Your task to perform on an android device: Open Maps and search for coffee Image 0: 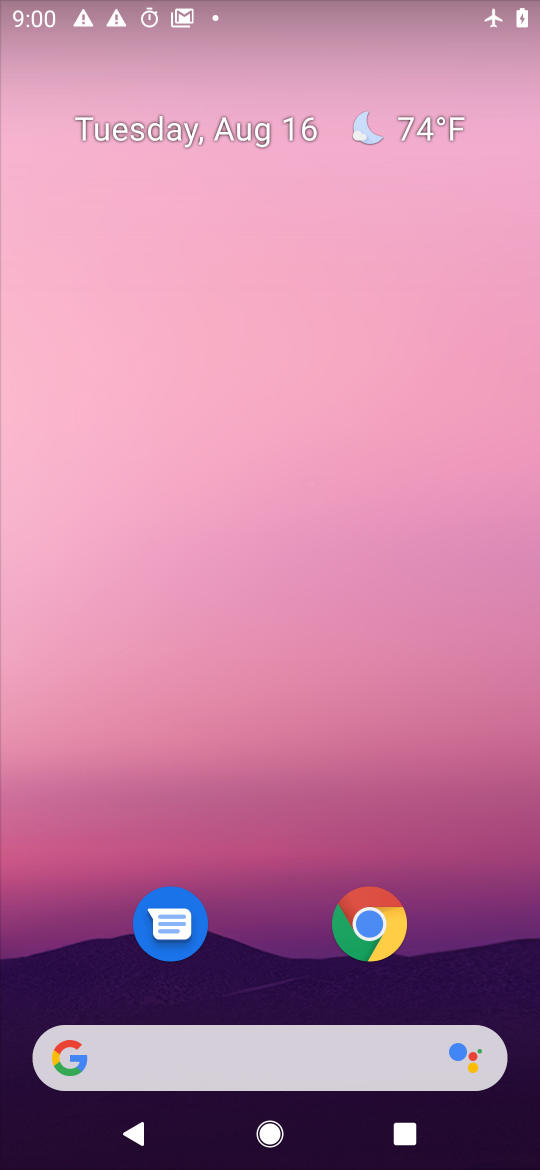
Step 0: drag from (310, 999) to (387, 75)
Your task to perform on an android device: Open Maps and search for coffee Image 1: 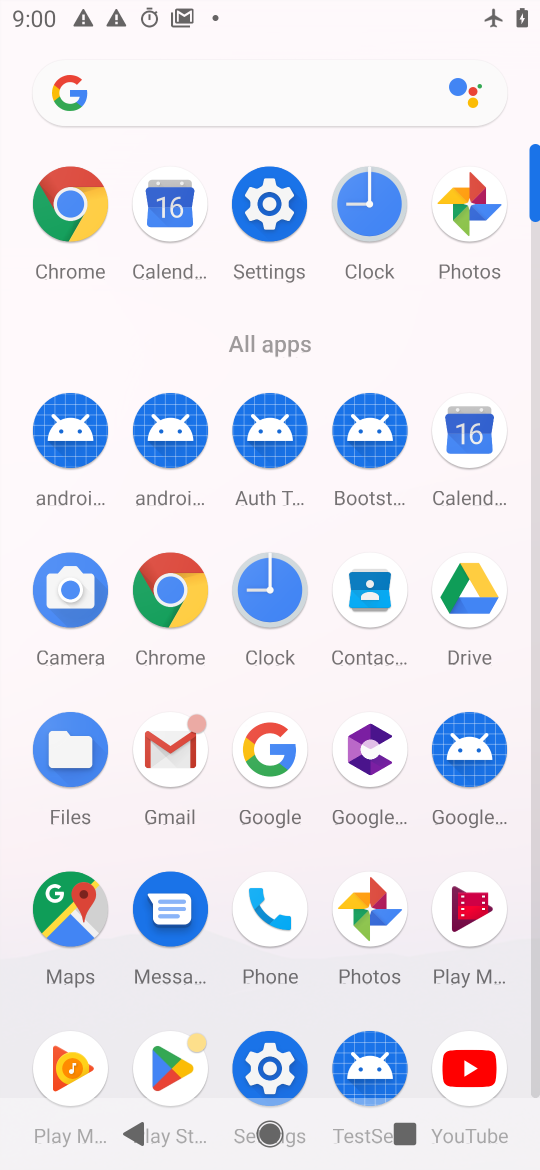
Step 1: click (54, 920)
Your task to perform on an android device: Open Maps and search for coffee Image 2: 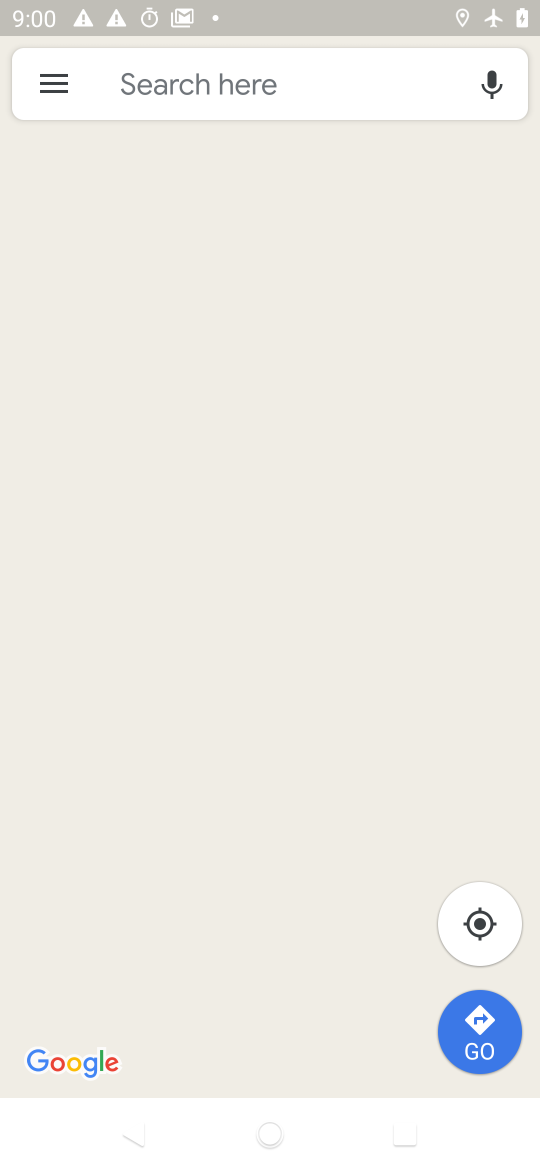
Step 2: click (256, 97)
Your task to perform on an android device: Open Maps and search for coffee Image 3: 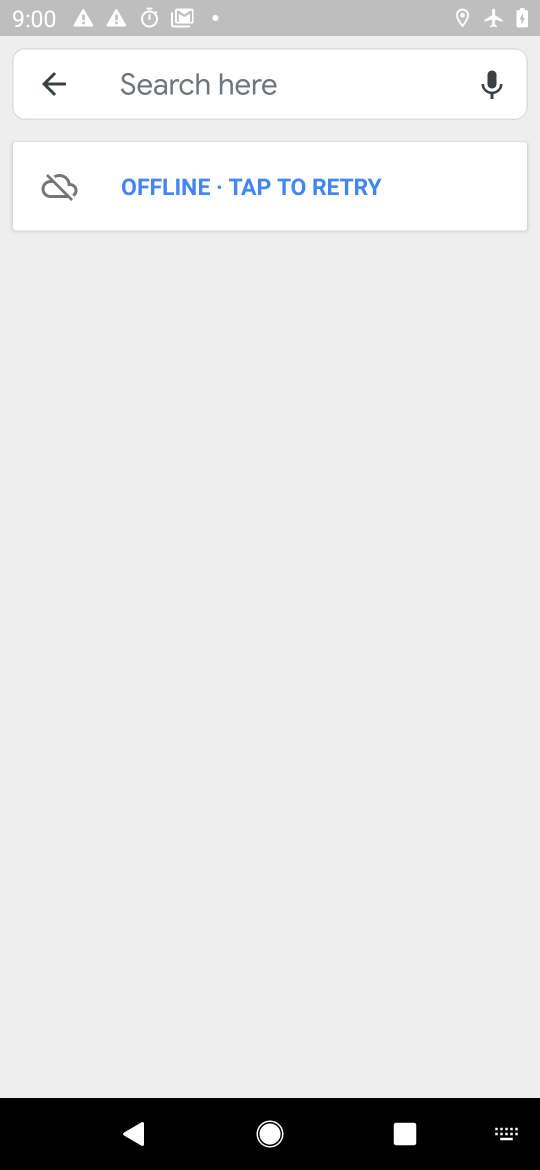
Step 3: click (241, 88)
Your task to perform on an android device: Open Maps and search for coffee Image 4: 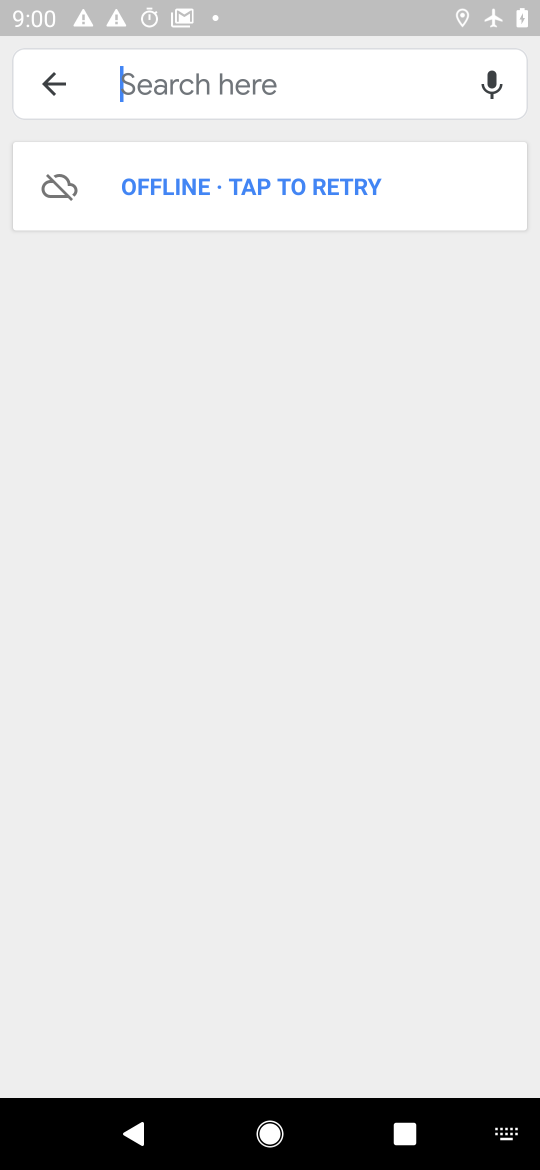
Step 4: drag from (456, 117) to (456, 853)
Your task to perform on an android device: Open Maps and search for coffee Image 5: 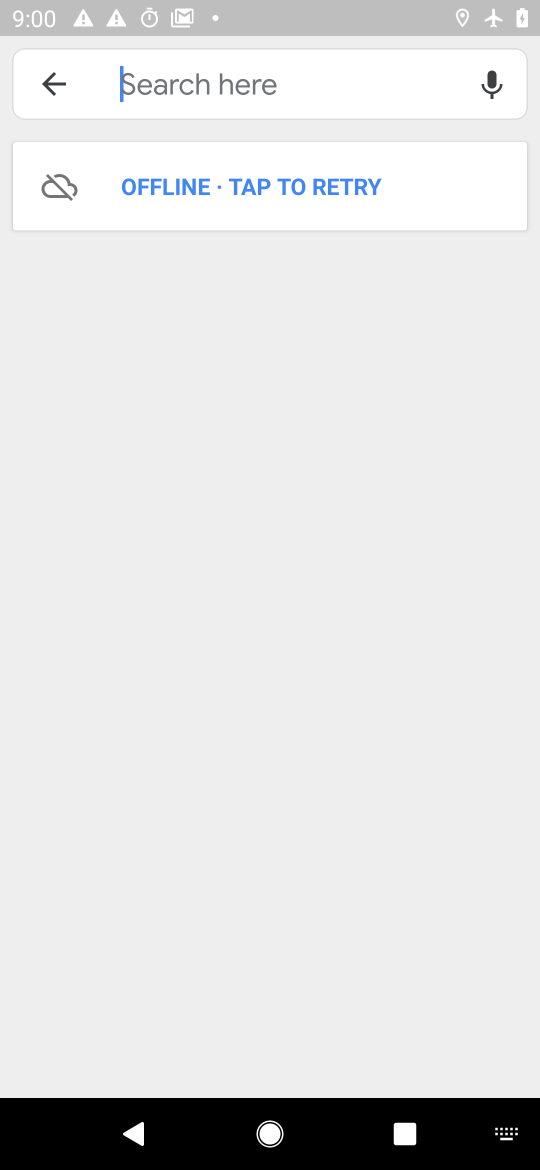
Step 5: drag from (493, 3) to (329, 911)
Your task to perform on an android device: Open Maps and search for coffee Image 6: 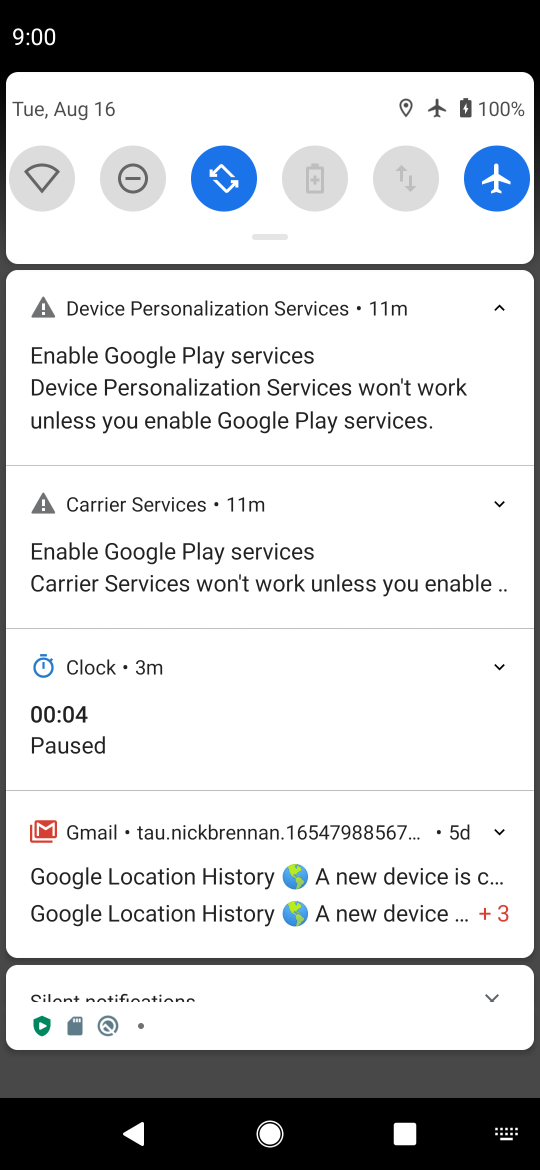
Step 6: click (487, 177)
Your task to perform on an android device: Open Maps and search for coffee Image 7: 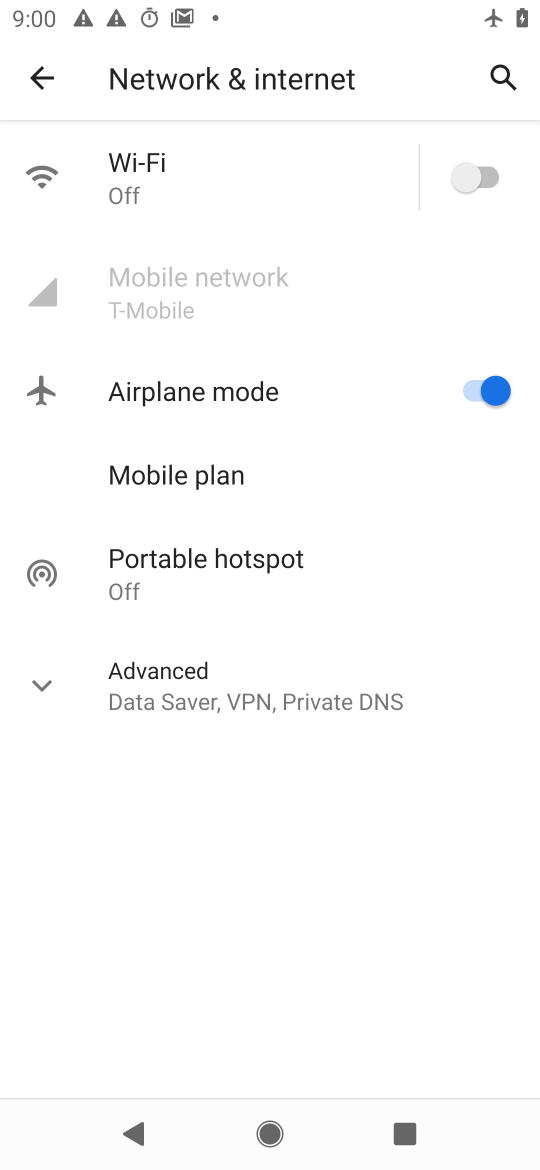
Step 7: click (487, 402)
Your task to perform on an android device: Open Maps and search for coffee Image 8: 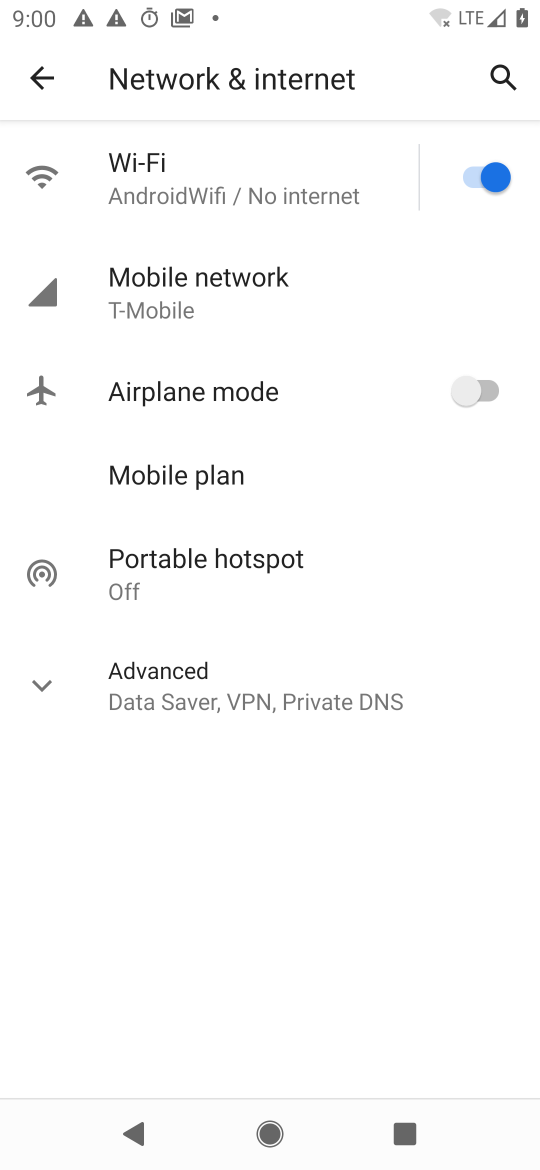
Step 8: press back button
Your task to perform on an android device: Open Maps and search for coffee Image 9: 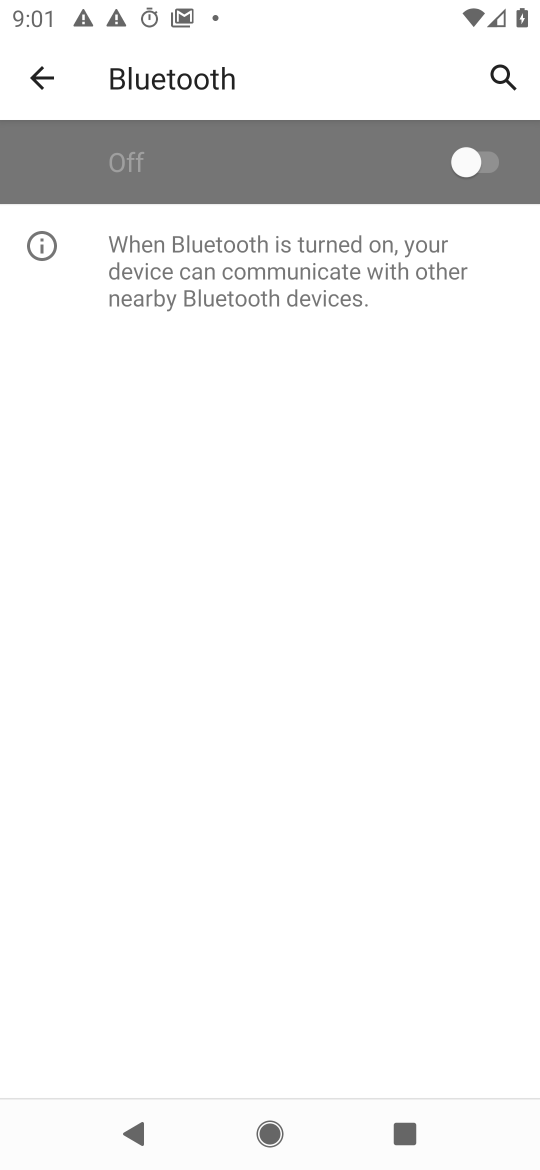
Step 9: press back button
Your task to perform on an android device: Open Maps and search for coffee Image 10: 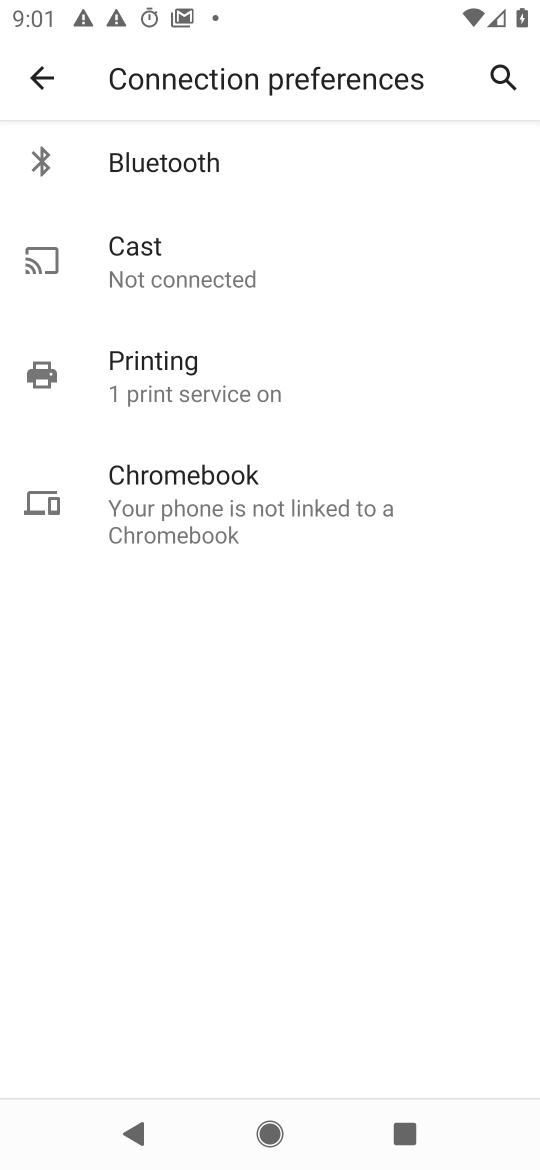
Step 10: press back button
Your task to perform on an android device: Open Maps and search for coffee Image 11: 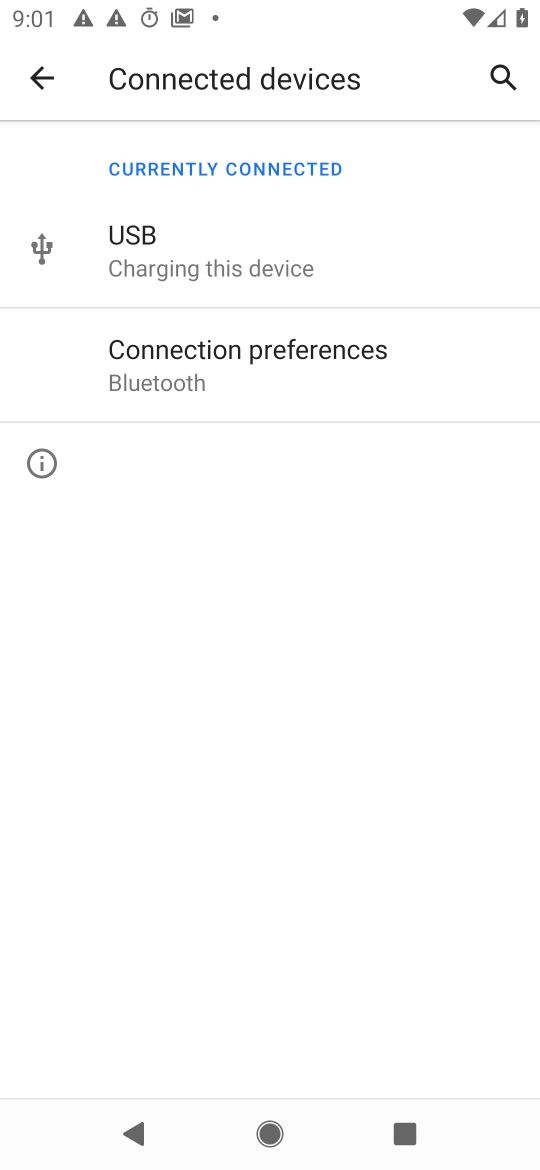
Step 11: press back button
Your task to perform on an android device: Open Maps and search for coffee Image 12: 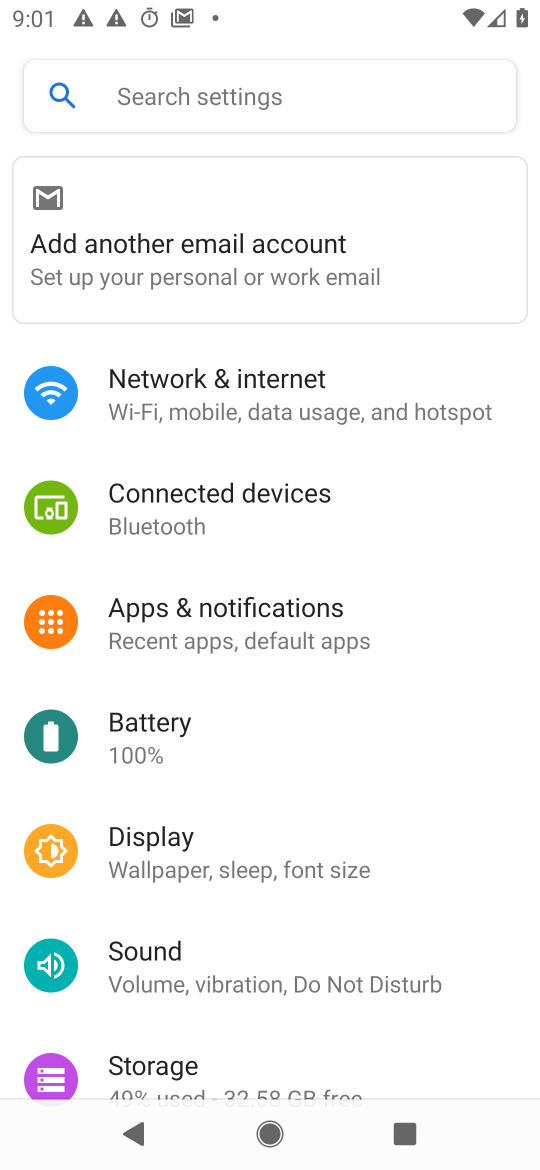
Step 12: press back button
Your task to perform on an android device: Open Maps and search for coffee Image 13: 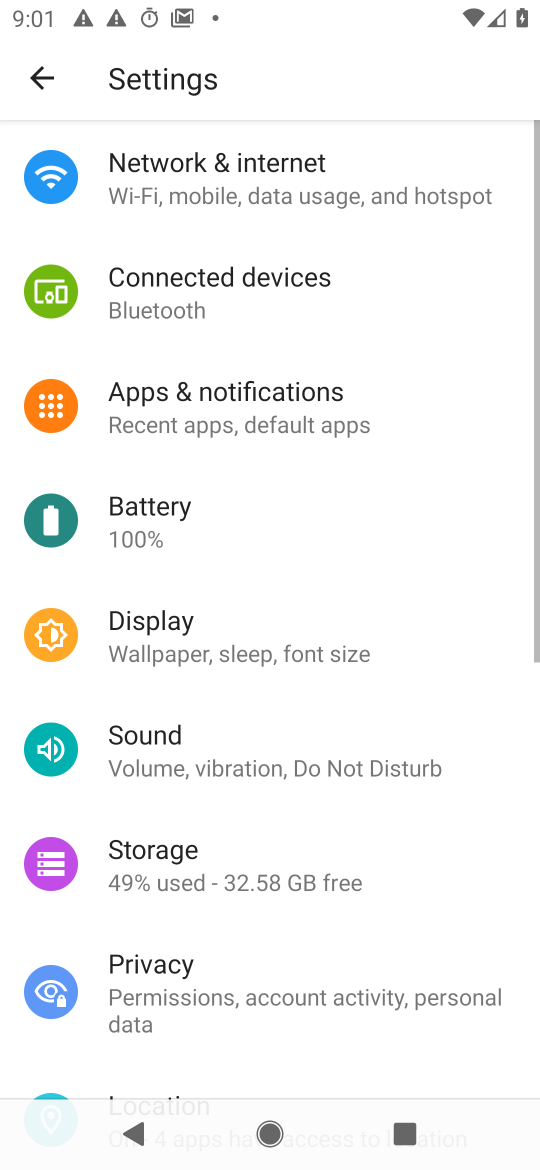
Step 13: press back button
Your task to perform on an android device: Open Maps and search for coffee Image 14: 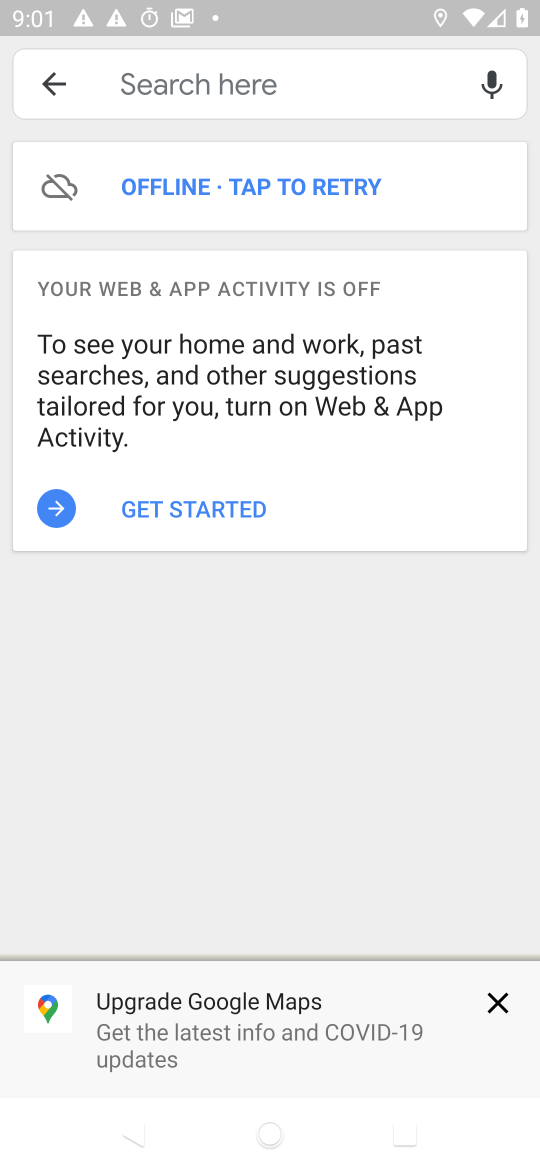
Step 14: click (193, 70)
Your task to perform on an android device: Open Maps and search for coffee Image 15: 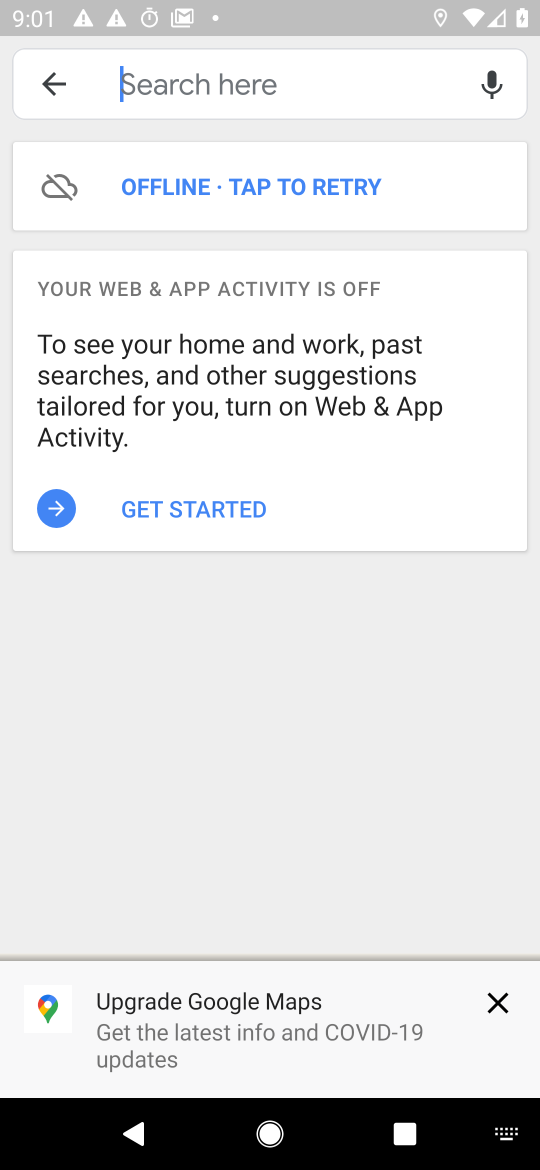
Step 15: click (234, 199)
Your task to perform on an android device: Open Maps and search for coffee Image 16: 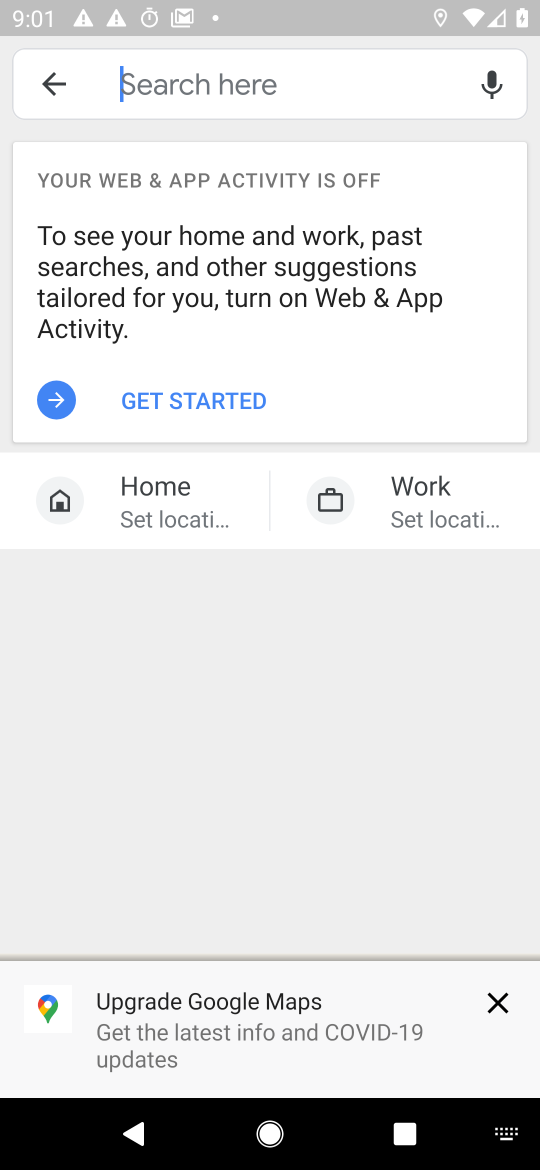
Step 16: click (217, 72)
Your task to perform on an android device: Open Maps and search for coffee Image 17: 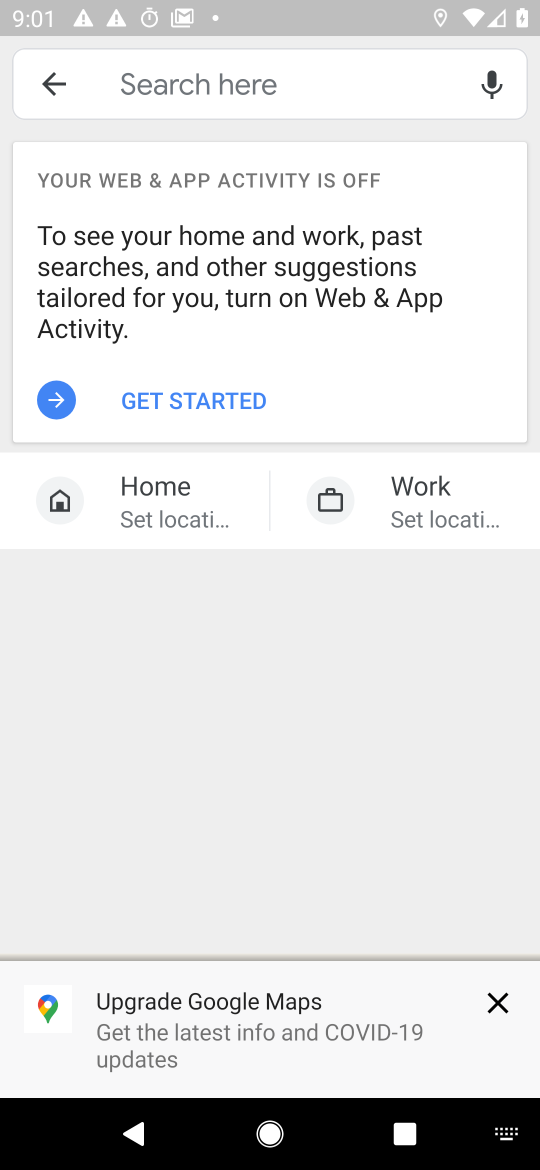
Step 17: type "coffe"
Your task to perform on an android device: Open Maps and search for coffee Image 18: 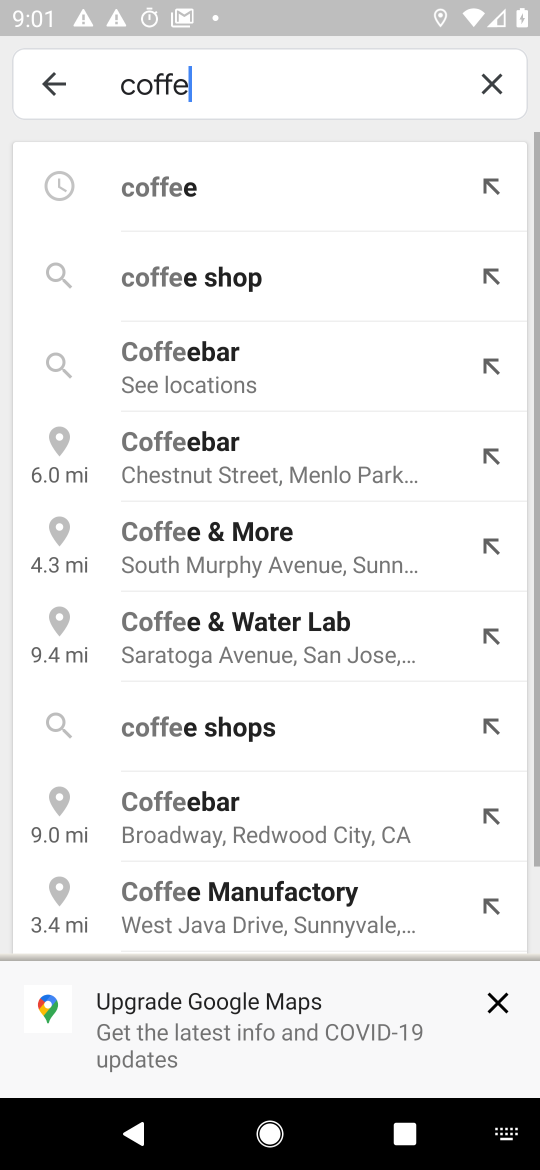
Step 18: click (165, 174)
Your task to perform on an android device: Open Maps and search for coffee Image 19: 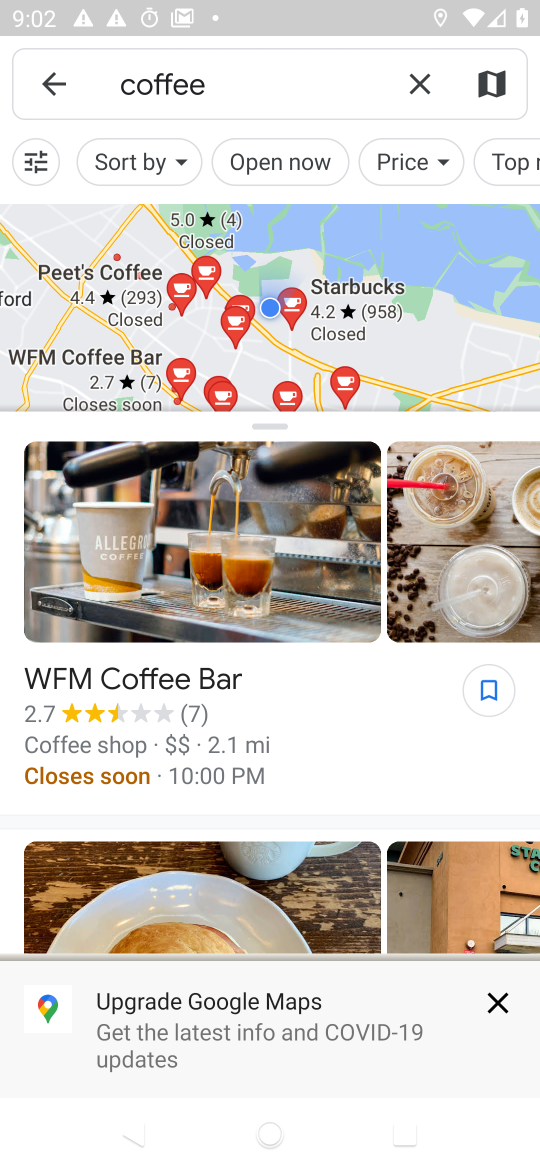
Step 19: task complete